Your task to perform on an android device: empty trash in google photos Image 0: 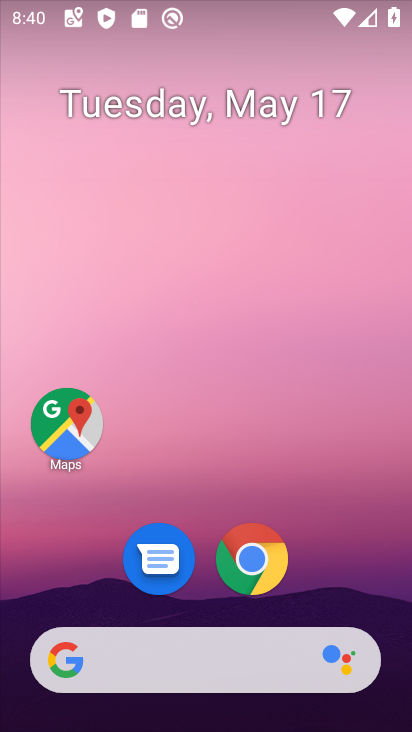
Step 0: drag from (245, 715) to (263, 3)
Your task to perform on an android device: empty trash in google photos Image 1: 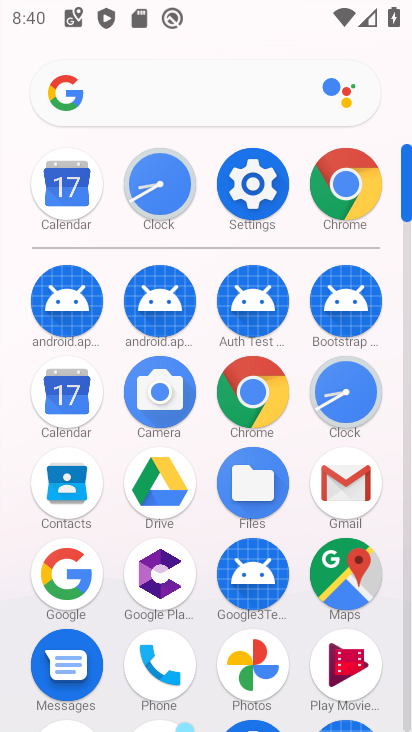
Step 1: click (244, 647)
Your task to perform on an android device: empty trash in google photos Image 2: 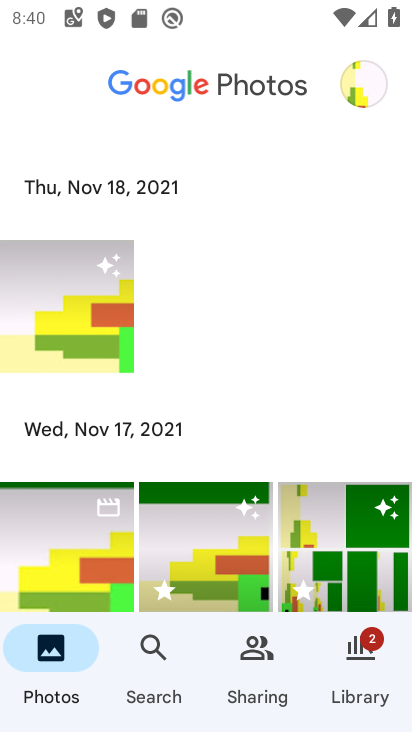
Step 2: click (369, 668)
Your task to perform on an android device: empty trash in google photos Image 3: 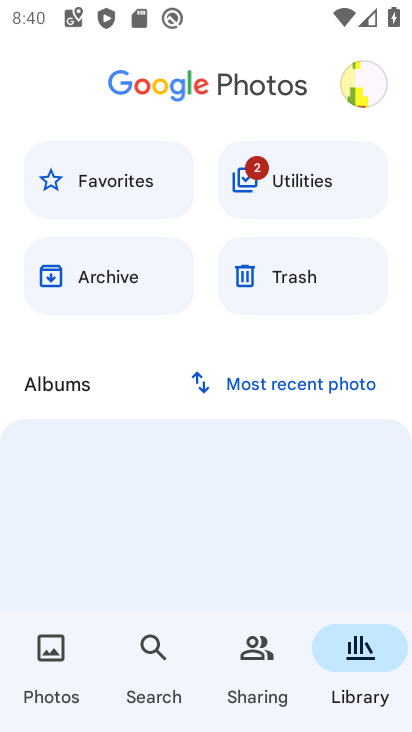
Step 3: click (330, 268)
Your task to perform on an android device: empty trash in google photos Image 4: 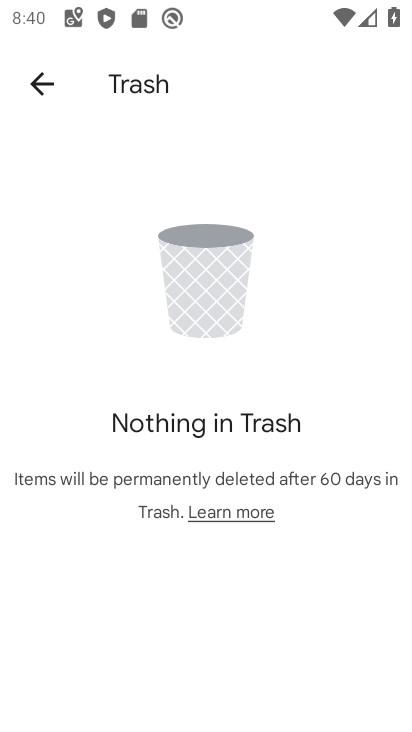
Step 4: task complete